Your task to perform on an android device: turn off sleep mode Image 0: 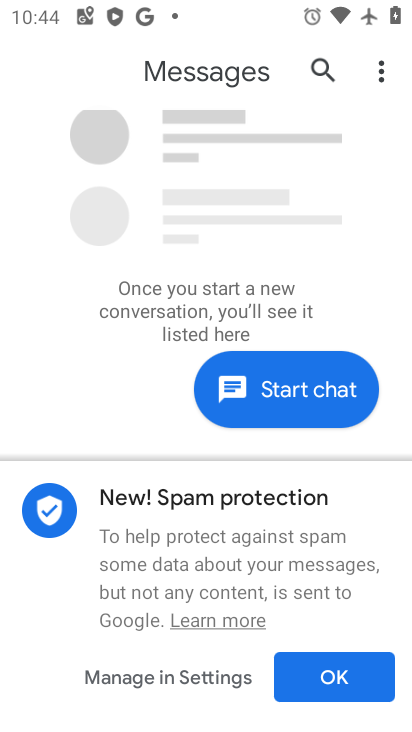
Step 0: press home button
Your task to perform on an android device: turn off sleep mode Image 1: 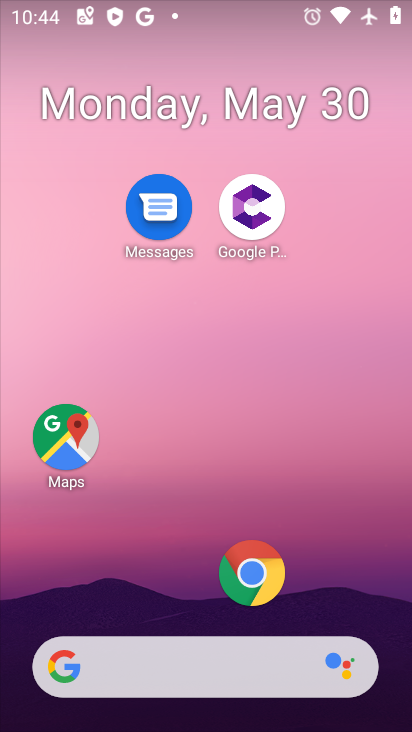
Step 1: drag from (116, 639) to (273, 147)
Your task to perform on an android device: turn off sleep mode Image 2: 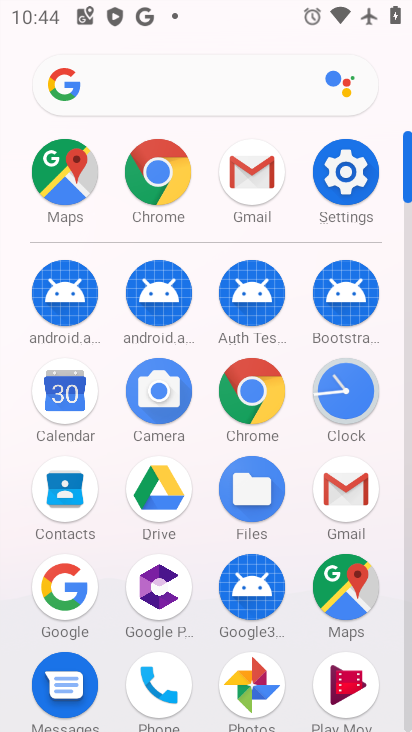
Step 2: click (346, 190)
Your task to perform on an android device: turn off sleep mode Image 3: 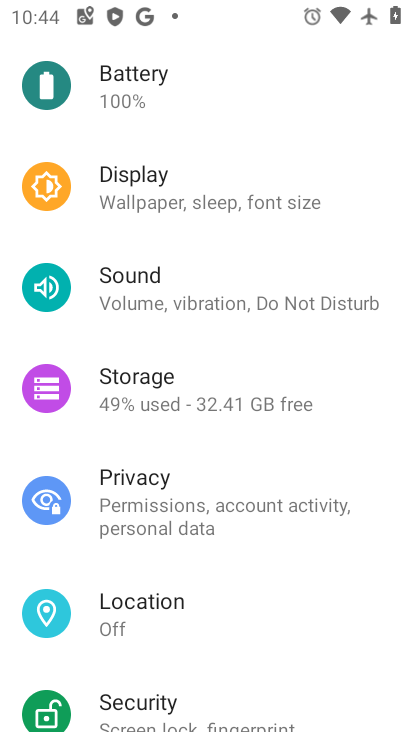
Step 3: drag from (214, 289) to (169, 570)
Your task to perform on an android device: turn off sleep mode Image 4: 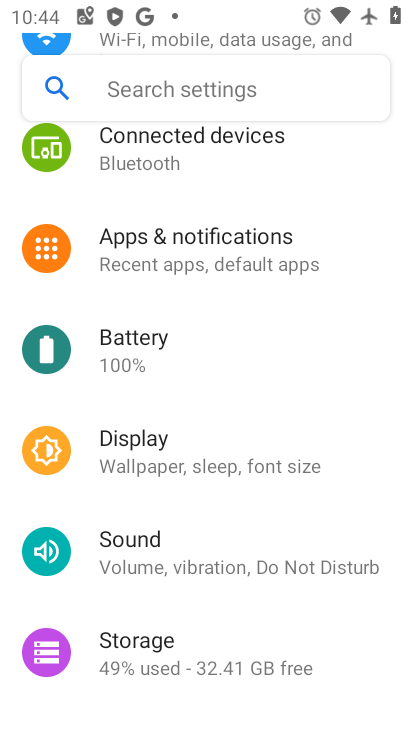
Step 4: click (224, 454)
Your task to perform on an android device: turn off sleep mode Image 5: 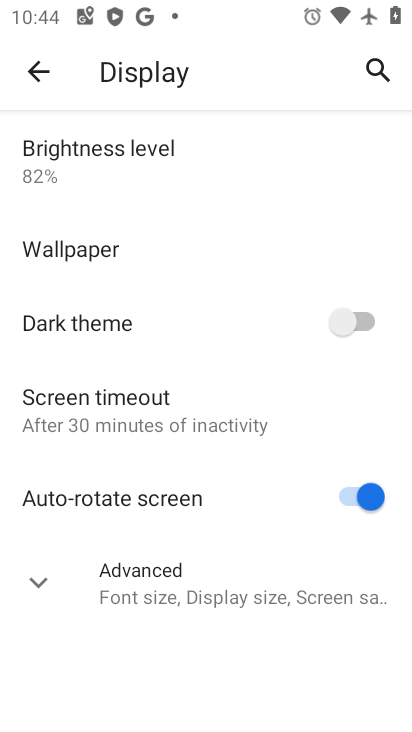
Step 5: task complete